Your task to perform on an android device: delete a single message in the gmail app Image 0: 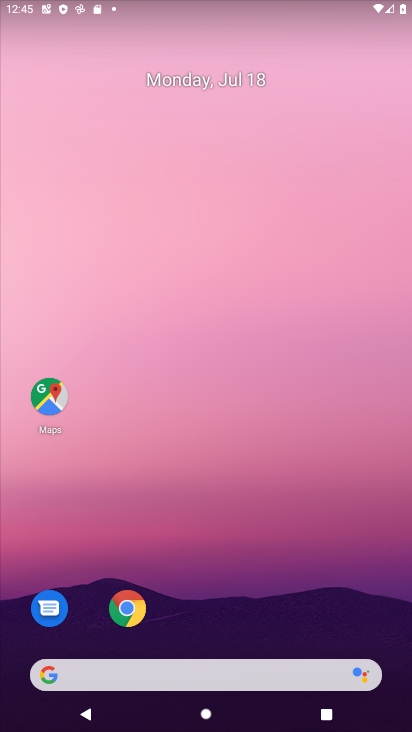
Step 0: drag from (375, 607) to (252, 61)
Your task to perform on an android device: delete a single message in the gmail app Image 1: 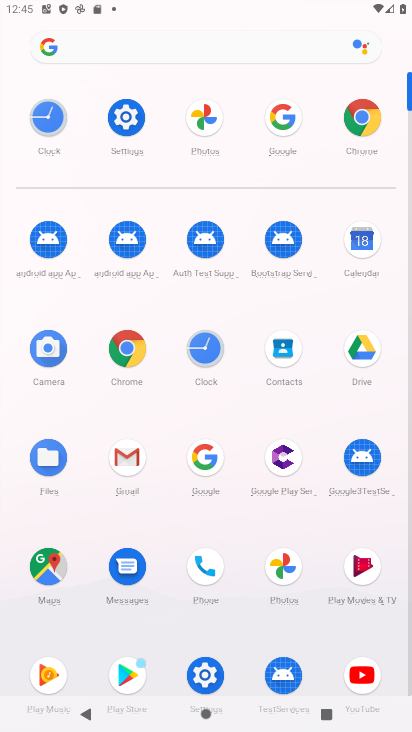
Step 1: click (117, 463)
Your task to perform on an android device: delete a single message in the gmail app Image 2: 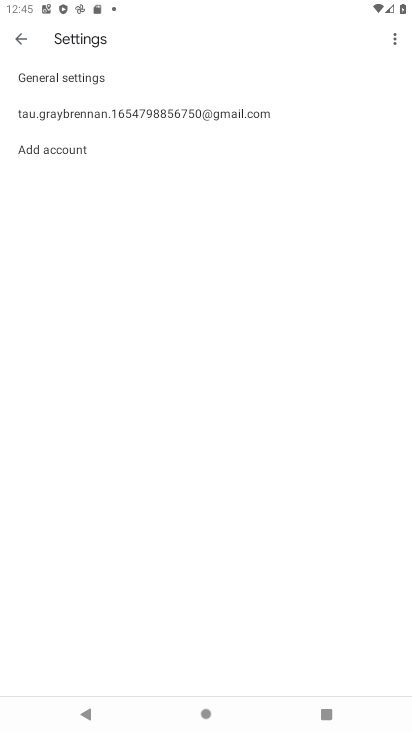
Step 2: task complete